Your task to perform on an android device: What's the weather? Image 0: 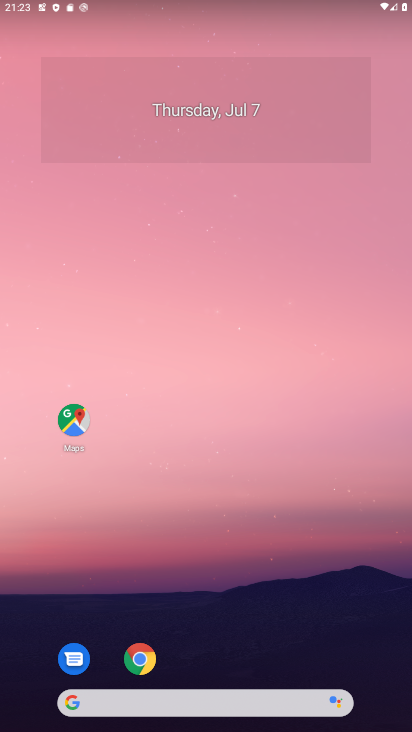
Step 0: click (214, 698)
Your task to perform on an android device: What's the weather? Image 1: 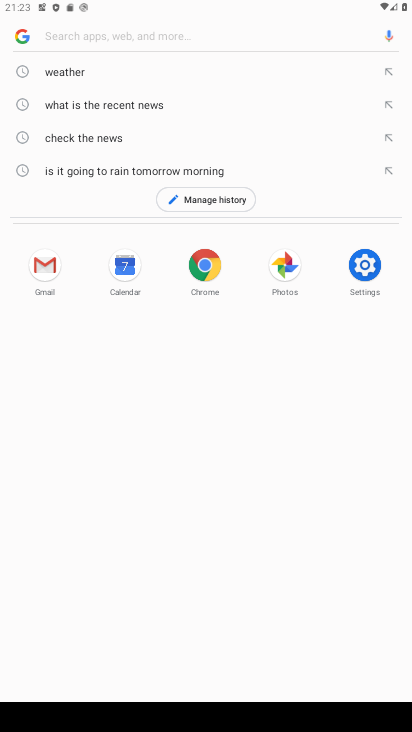
Step 1: click (63, 60)
Your task to perform on an android device: What's the weather? Image 2: 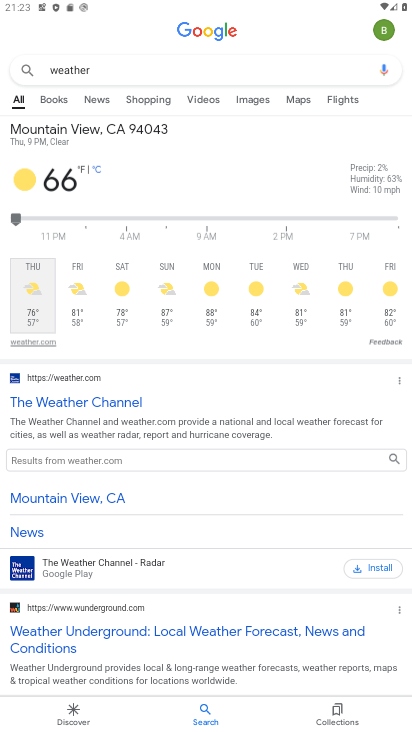
Step 2: task complete